Your task to perform on an android device: open chrome privacy settings Image 0: 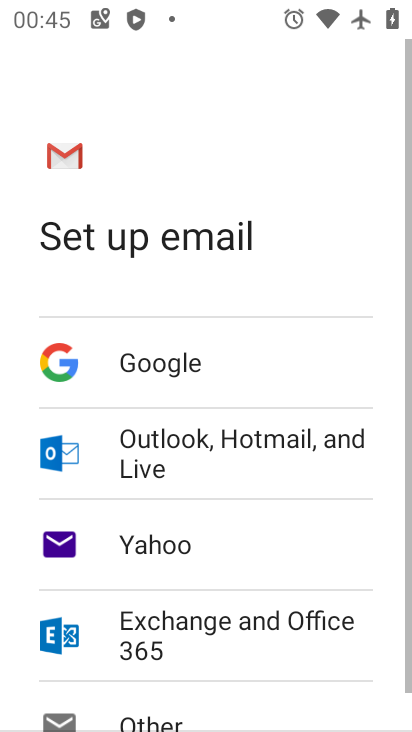
Step 0: press home button
Your task to perform on an android device: open chrome privacy settings Image 1: 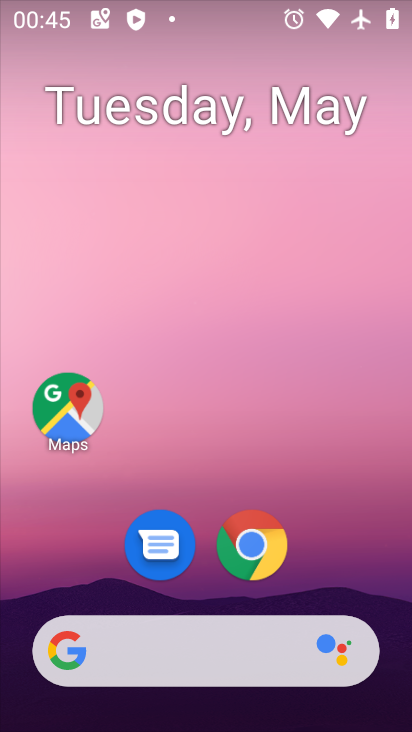
Step 1: click (255, 533)
Your task to perform on an android device: open chrome privacy settings Image 2: 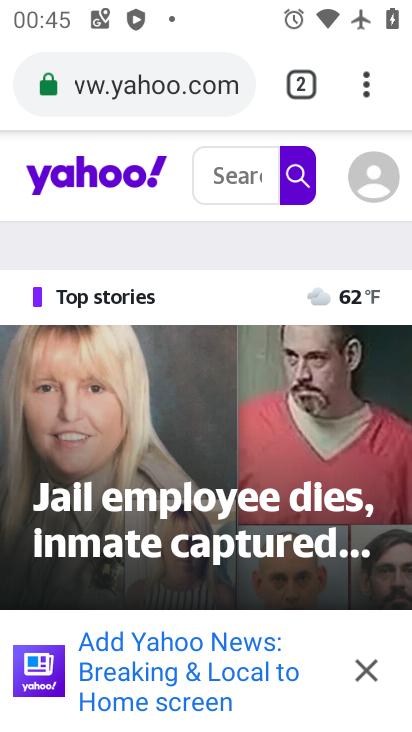
Step 2: click (361, 102)
Your task to perform on an android device: open chrome privacy settings Image 3: 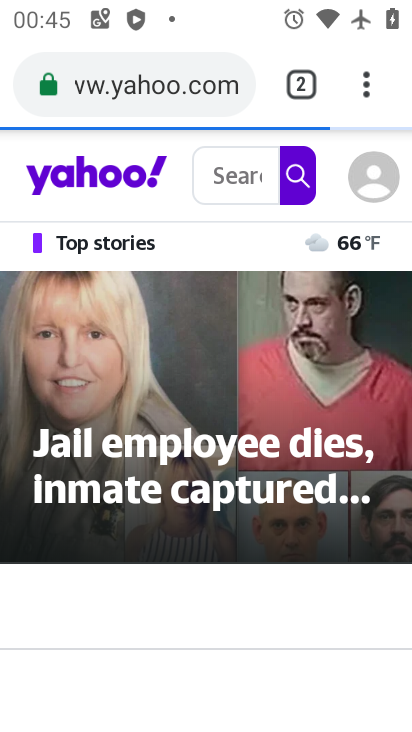
Step 3: click (369, 84)
Your task to perform on an android device: open chrome privacy settings Image 4: 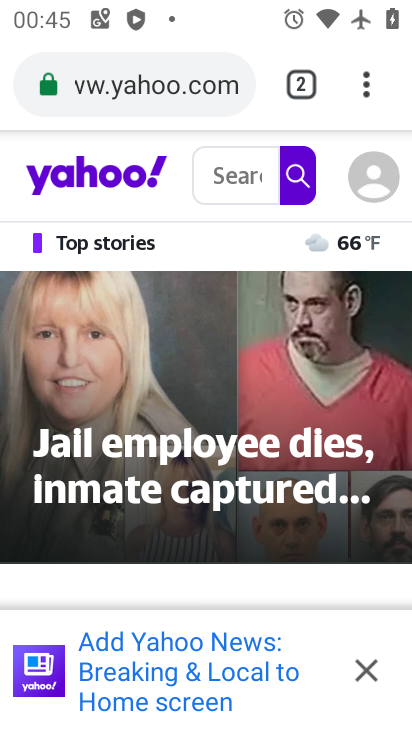
Step 4: click (359, 92)
Your task to perform on an android device: open chrome privacy settings Image 5: 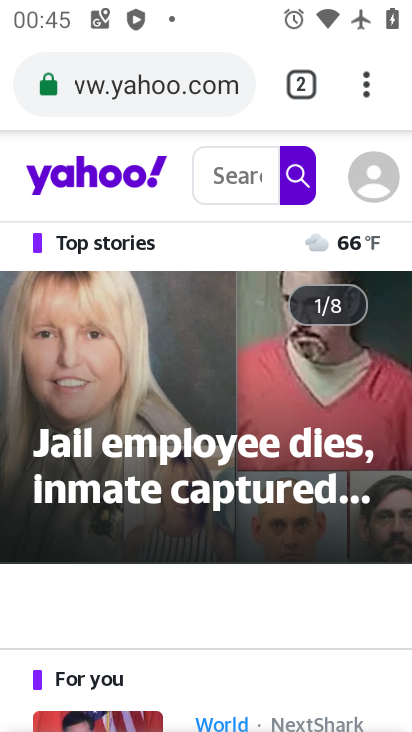
Step 5: click (359, 93)
Your task to perform on an android device: open chrome privacy settings Image 6: 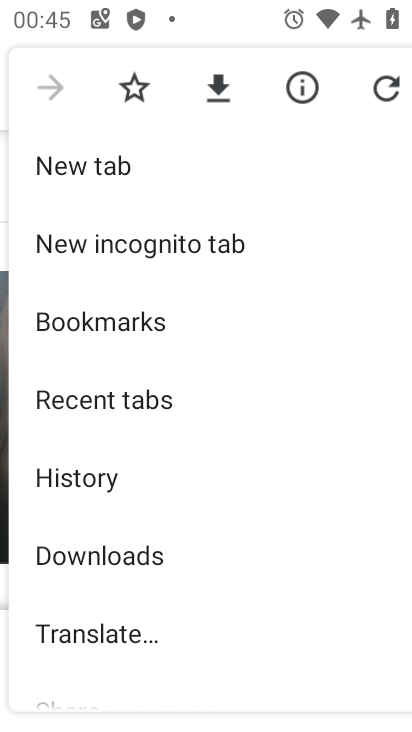
Step 6: drag from (189, 576) to (253, 325)
Your task to perform on an android device: open chrome privacy settings Image 7: 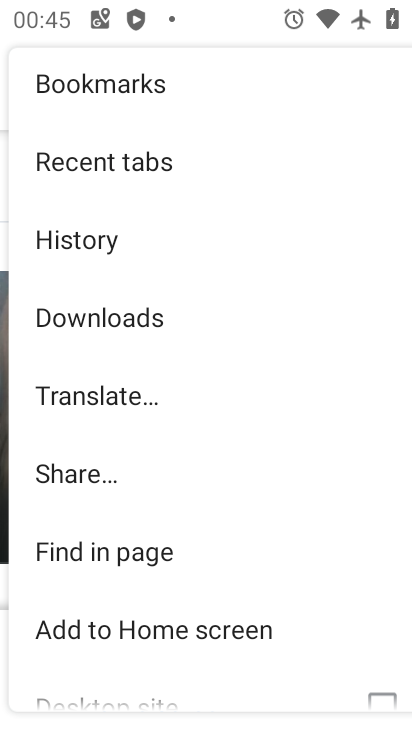
Step 7: drag from (184, 568) to (210, 359)
Your task to perform on an android device: open chrome privacy settings Image 8: 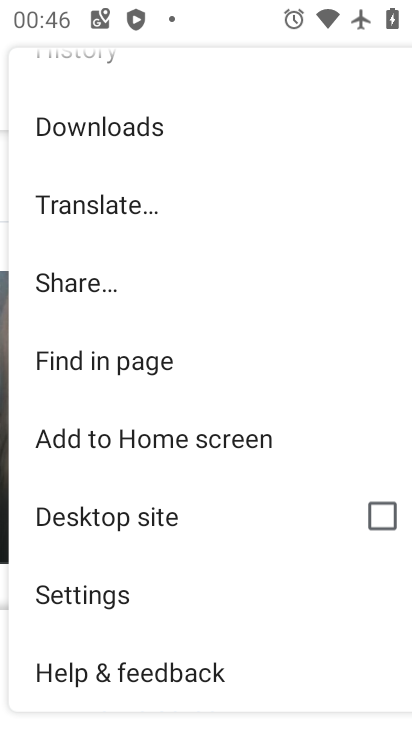
Step 8: click (207, 596)
Your task to perform on an android device: open chrome privacy settings Image 9: 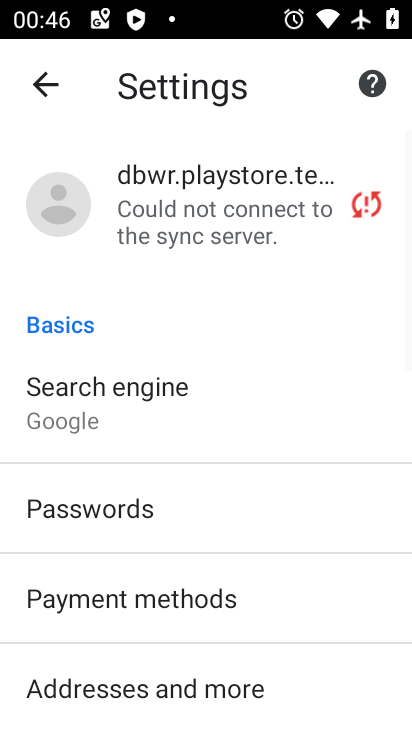
Step 9: drag from (205, 594) to (237, 436)
Your task to perform on an android device: open chrome privacy settings Image 10: 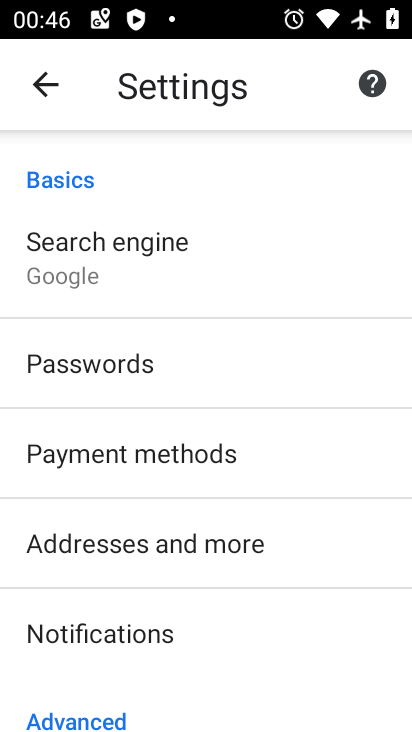
Step 10: drag from (236, 633) to (262, 434)
Your task to perform on an android device: open chrome privacy settings Image 11: 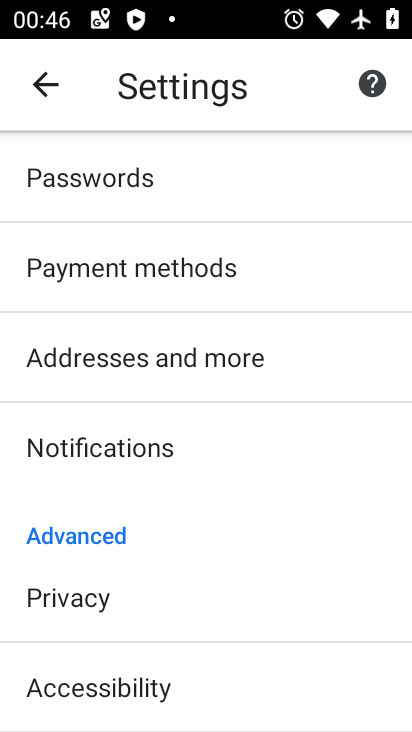
Step 11: click (99, 606)
Your task to perform on an android device: open chrome privacy settings Image 12: 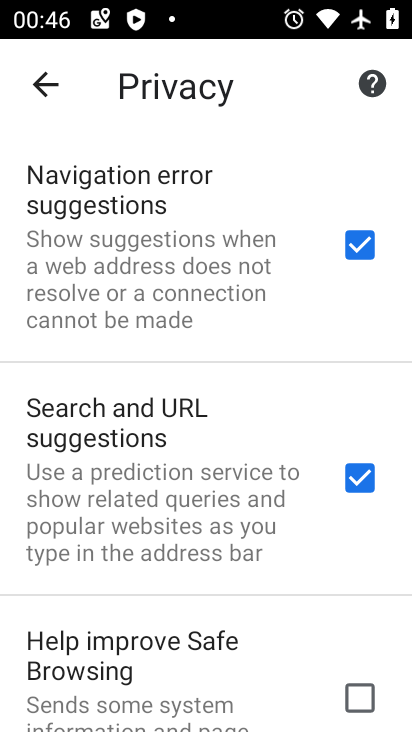
Step 12: task complete